Your task to perform on an android device: Open calendar and show me the third week of next month Image 0: 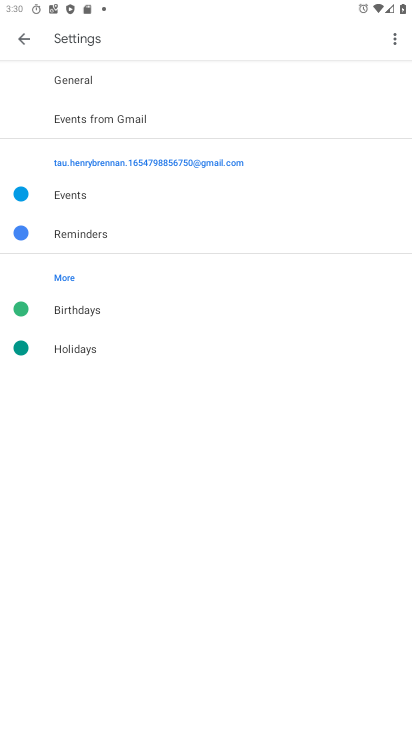
Step 0: press home button
Your task to perform on an android device: Open calendar and show me the third week of next month Image 1: 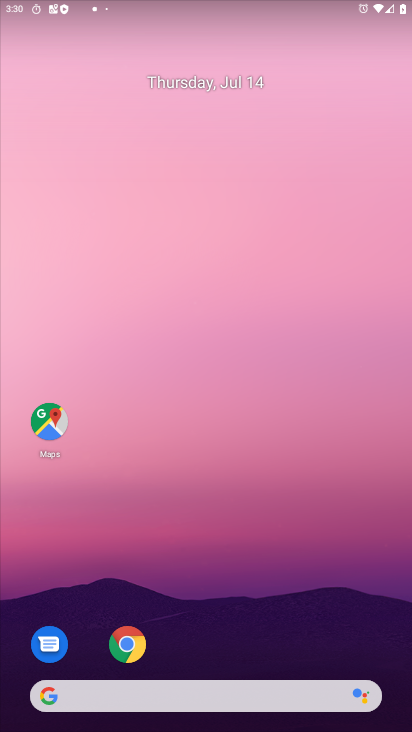
Step 1: drag from (20, 713) to (306, 22)
Your task to perform on an android device: Open calendar and show me the third week of next month Image 2: 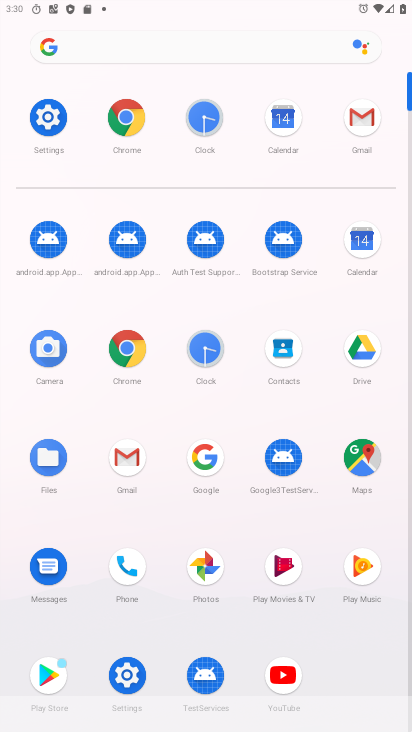
Step 2: click (351, 242)
Your task to perform on an android device: Open calendar and show me the third week of next month Image 3: 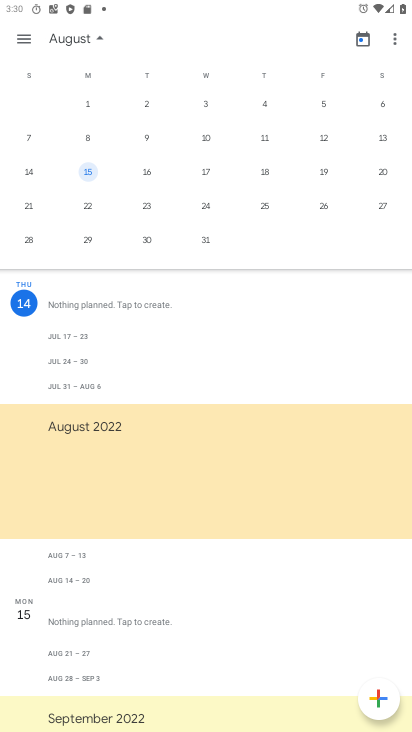
Step 3: drag from (249, 143) to (408, 121)
Your task to perform on an android device: Open calendar and show me the third week of next month Image 4: 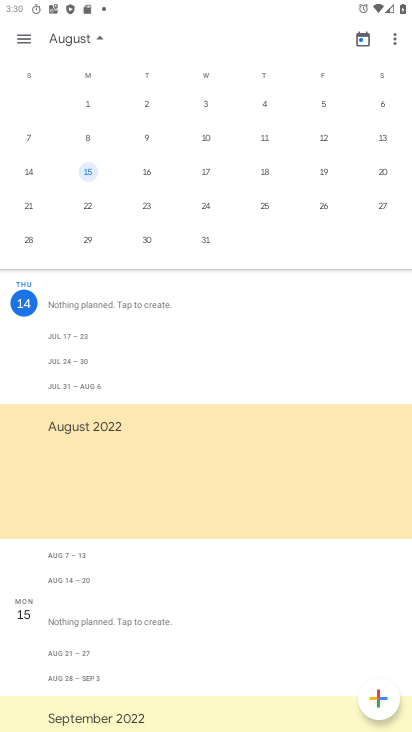
Step 4: drag from (22, 111) to (292, 107)
Your task to perform on an android device: Open calendar and show me the third week of next month Image 5: 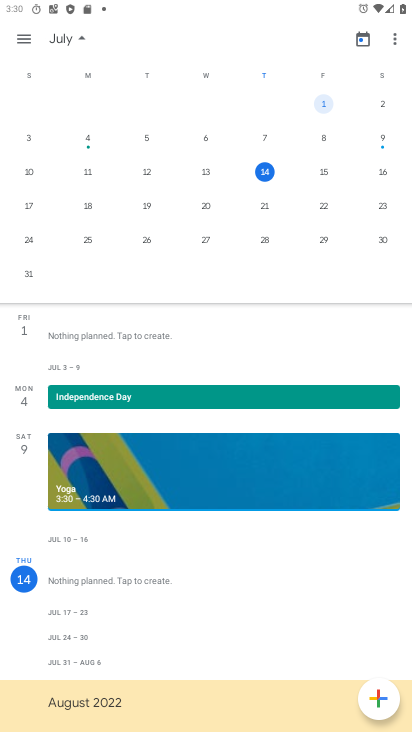
Step 5: drag from (372, 154) to (55, 112)
Your task to perform on an android device: Open calendar and show me the third week of next month Image 6: 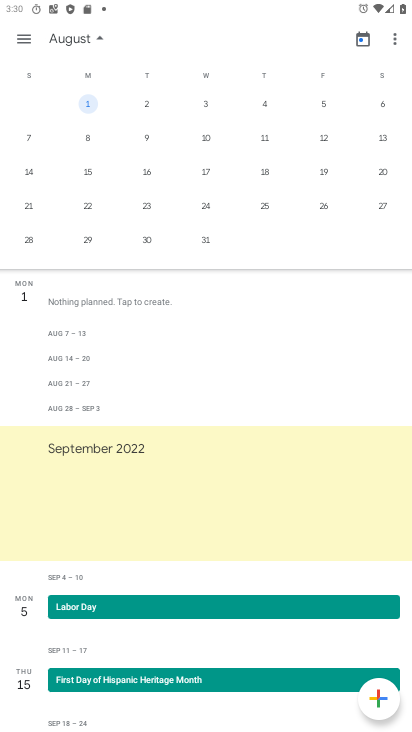
Step 6: click (85, 179)
Your task to perform on an android device: Open calendar and show me the third week of next month Image 7: 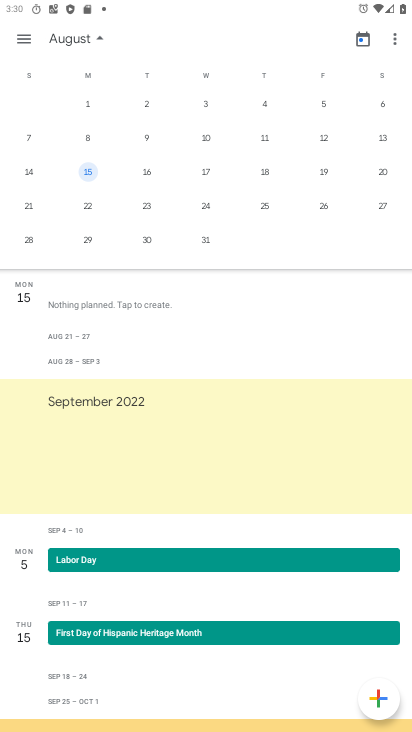
Step 7: task complete